Your task to perform on an android device: Is it going to rain today? Image 0: 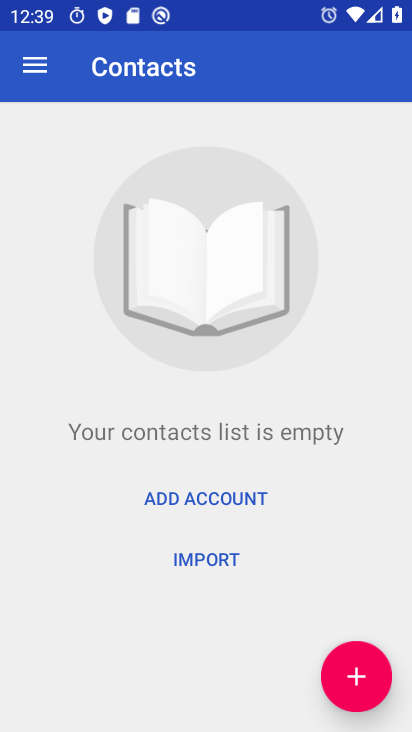
Step 0: press home button
Your task to perform on an android device: Is it going to rain today? Image 1: 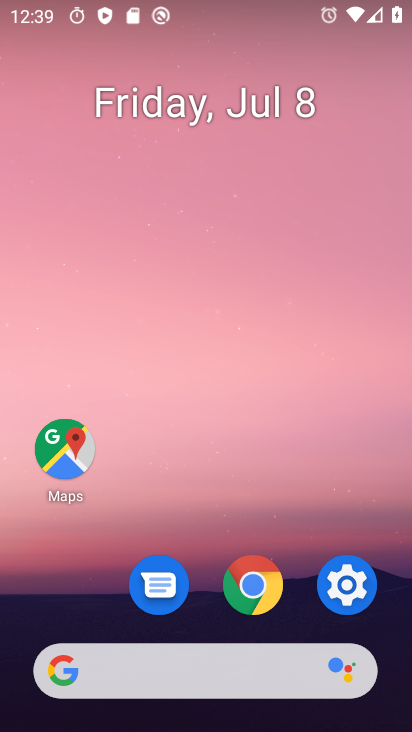
Step 1: click (212, 661)
Your task to perform on an android device: Is it going to rain today? Image 2: 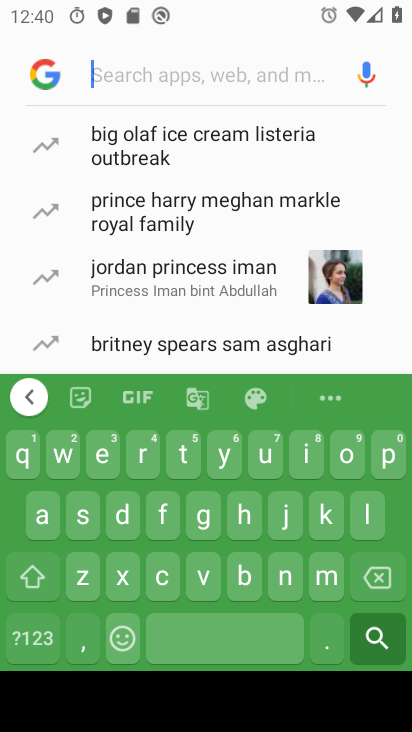
Step 2: click (142, 454)
Your task to perform on an android device: Is it going to rain today? Image 3: 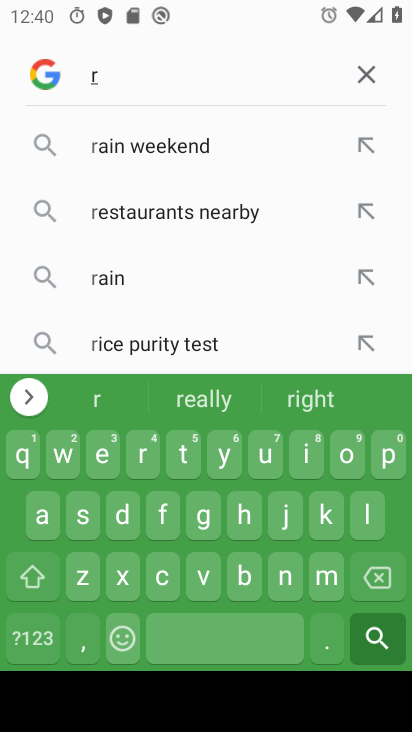
Step 3: click (46, 519)
Your task to perform on an android device: Is it going to rain today? Image 4: 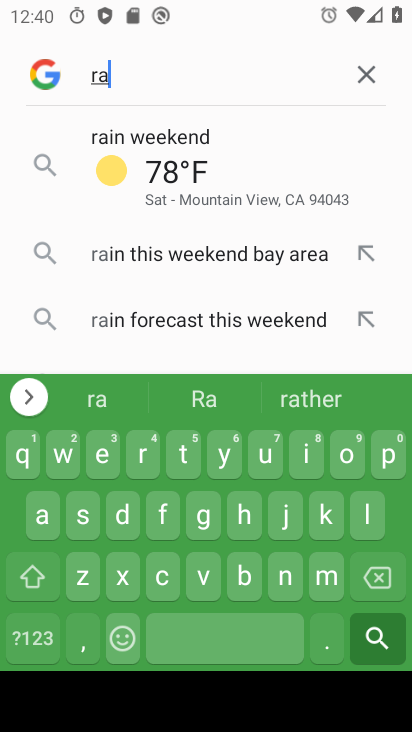
Step 4: click (304, 462)
Your task to perform on an android device: Is it going to rain today? Image 5: 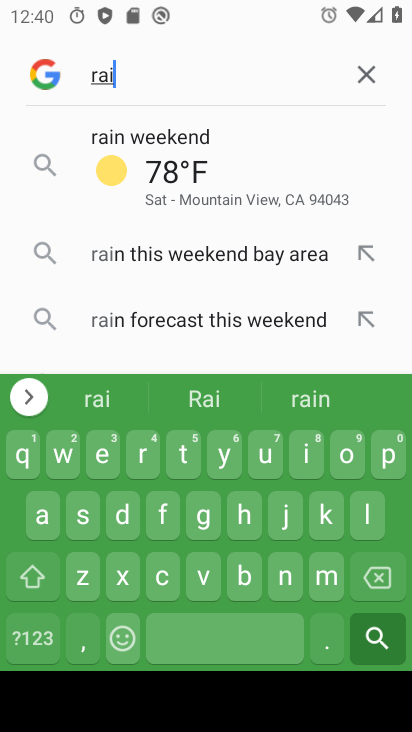
Step 5: click (308, 398)
Your task to perform on an android device: Is it going to rain today? Image 6: 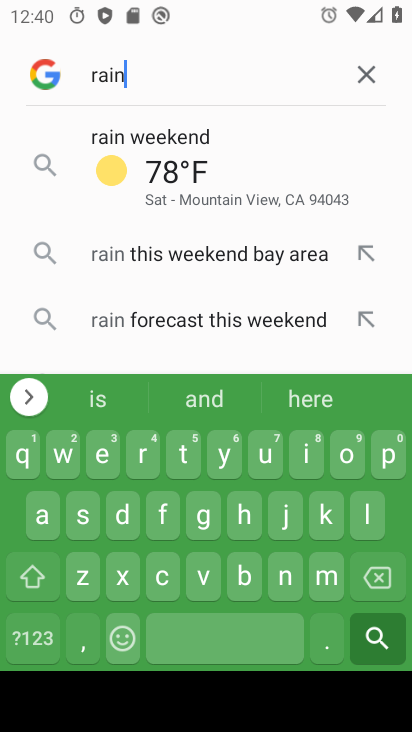
Step 6: click (182, 453)
Your task to perform on an android device: Is it going to rain today? Image 7: 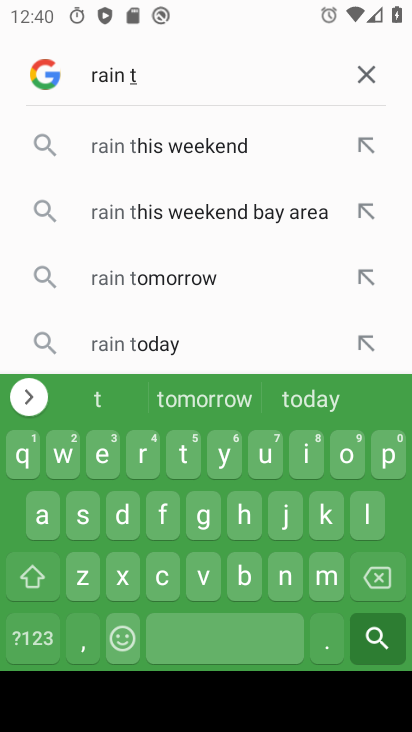
Step 7: click (182, 342)
Your task to perform on an android device: Is it going to rain today? Image 8: 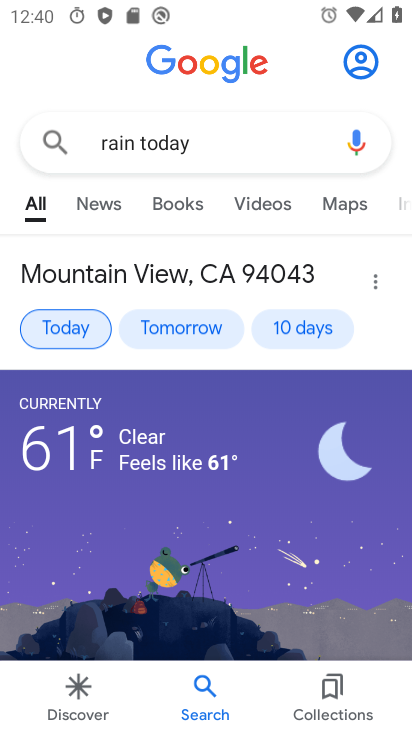
Step 8: task complete